Your task to perform on an android device: Go to privacy settings Image 0: 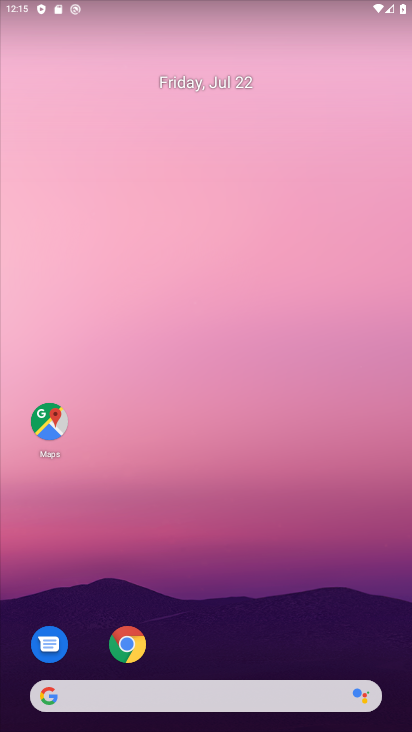
Step 0: drag from (251, 659) to (274, 139)
Your task to perform on an android device: Go to privacy settings Image 1: 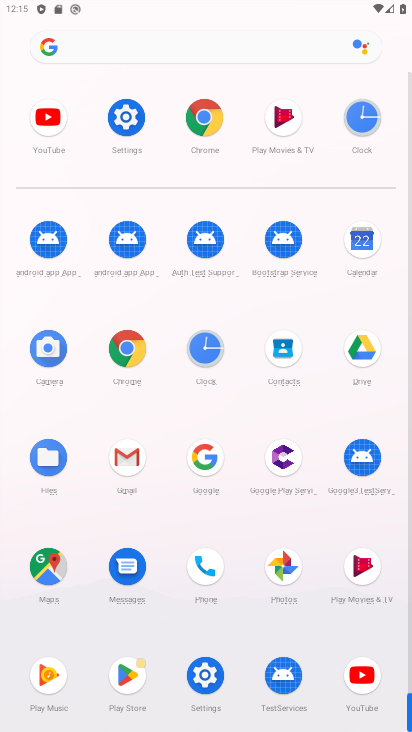
Step 1: drag from (223, 526) to (279, 241)
Your task to perform on an android device: Go to privacy settings Image 2: 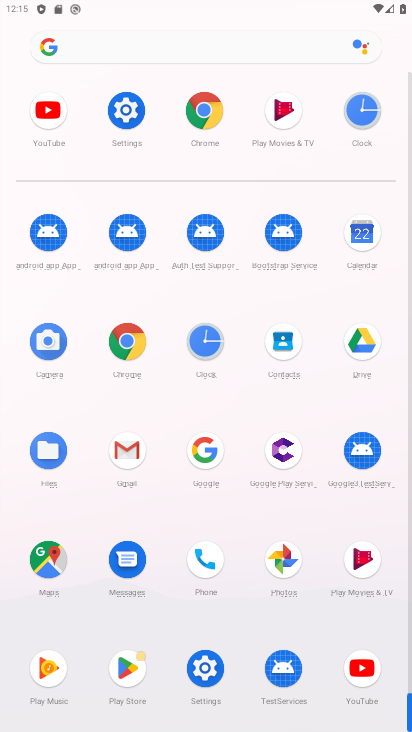
Step 2: click (130, 132)
Your task to perform on an android device: Go to privacy settings Image 3: 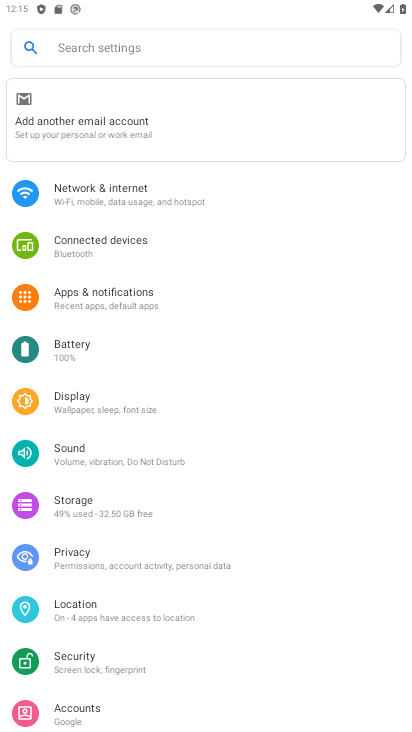
Step 3: click (111, 561)
Your task to perform on an android device: Go to privacy settings Image 4: 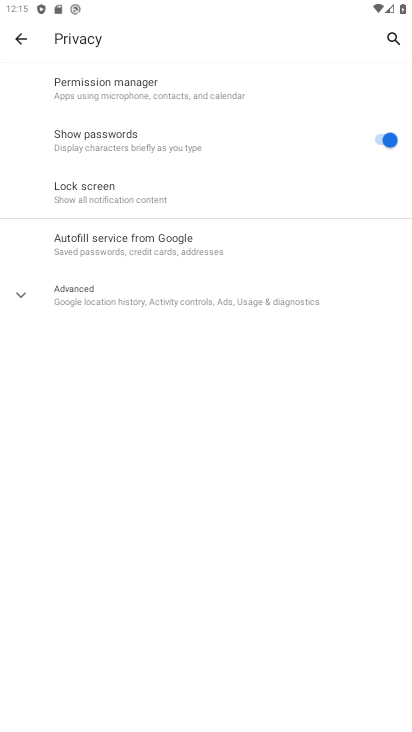
Step 4: click (114, 302)
Your task to perform on an android device: Go to privacy settings Image 5: 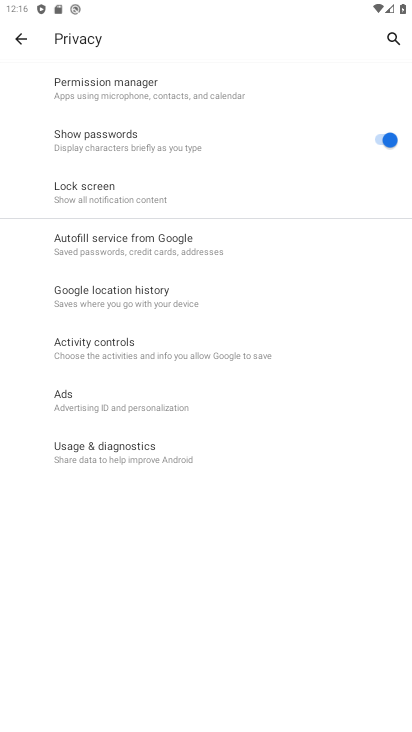
Step 5: task complete